Your task to perform on an android device: Search for sushi restaurants on Maps Image 0: 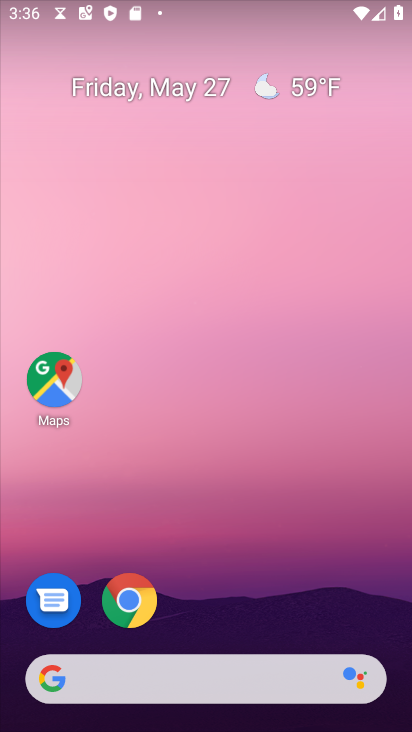
Step 0: click (57, 378)
Your task to perform on an android device: Search for sushi restaurants on Maps Image 1: 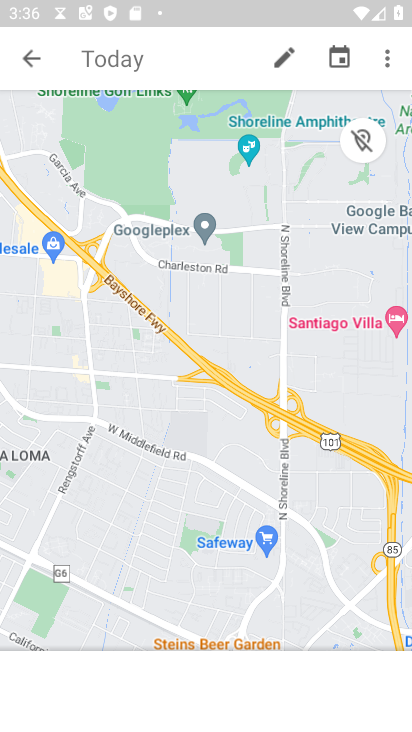
Step 1: press back button
Your task to perform on an android device: Search for sushi restaurants on Maps Image 2: 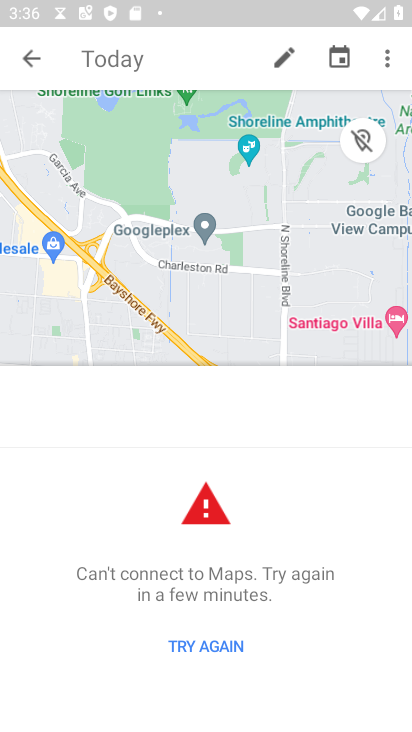
Step 2: press back button
Your task to perform on an android device: Search for sushi restaurants on Maps Image 3: 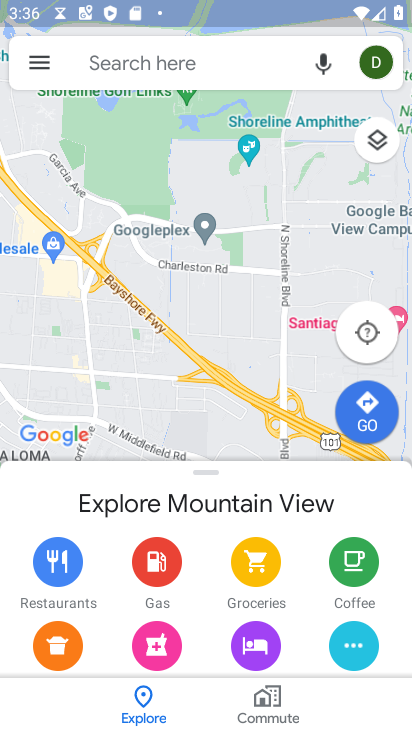
Step 3: click (121, 70)
Your task to perform on an android device: Search for sushi restaurants on Maps Image 4: 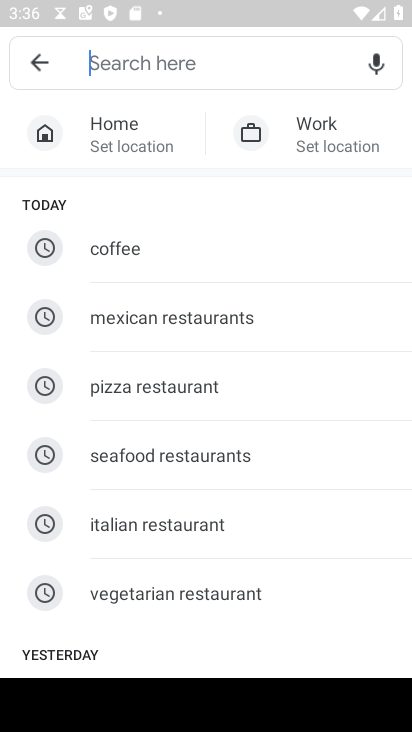
Step 4: type "sushi restaurants"
Your task to perform on an android device: Search for sushi restaurants on Maps Image 5: 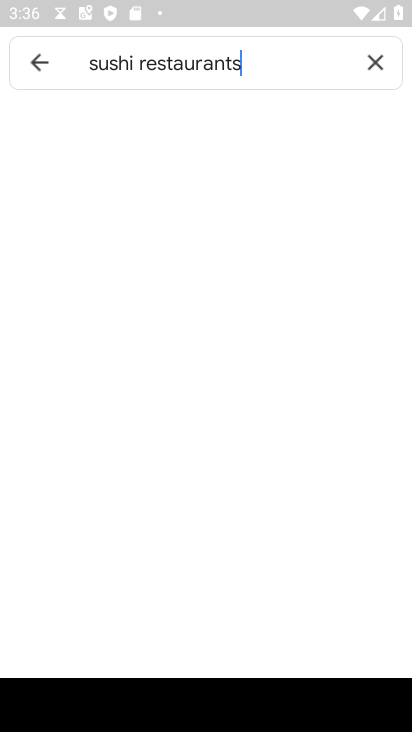
Step 5: type ""
Your task to perform on an android device: Search for sushi restaurants on Maps Image 6: 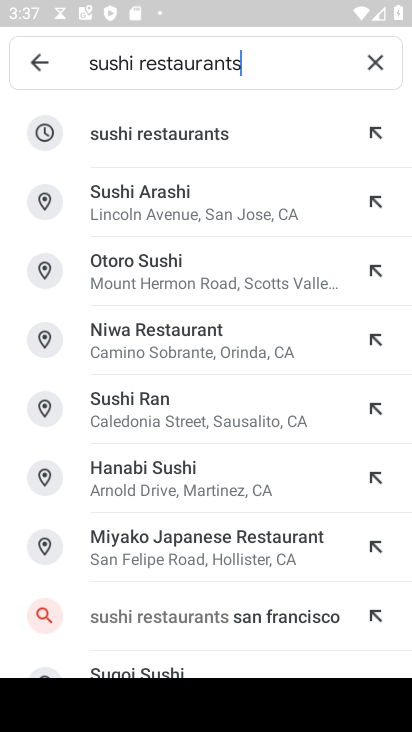
Step 6: click (198, 133)
Your task to perform on an android device: Search for sushi restaurants on Maps Image 7: 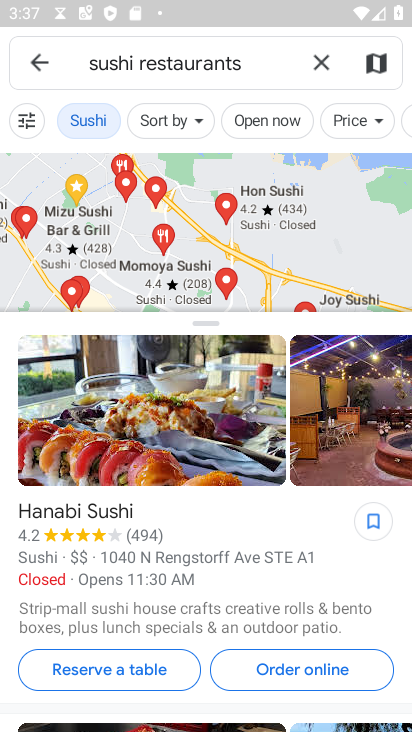
Step 7: task complete